Your task to perform on an android device: turn on airplane mode Image 0: 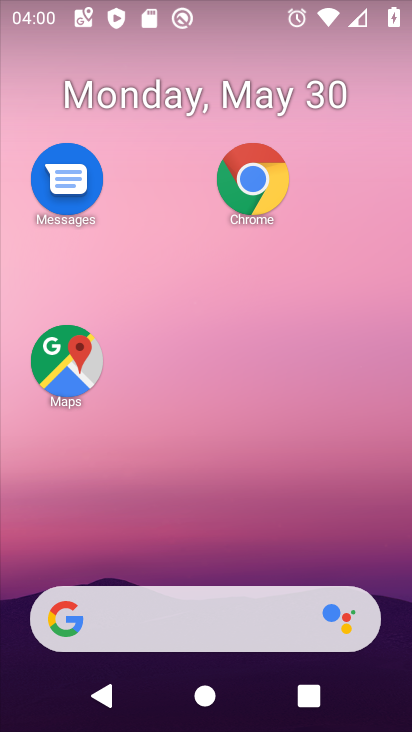
Step 0: drag from (196, 542) to (304, 6)
Your task to perform on an android device: turn on airplane mode Image 1: 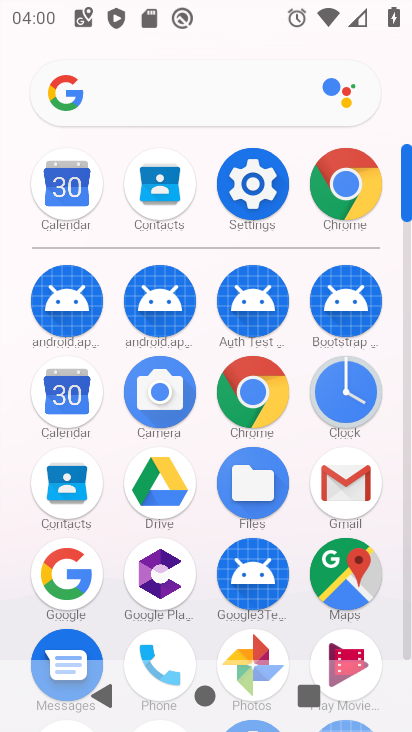
Step 1: click (256, 188)
Your task to perform on an android device: turn on airplane mode Image 2: 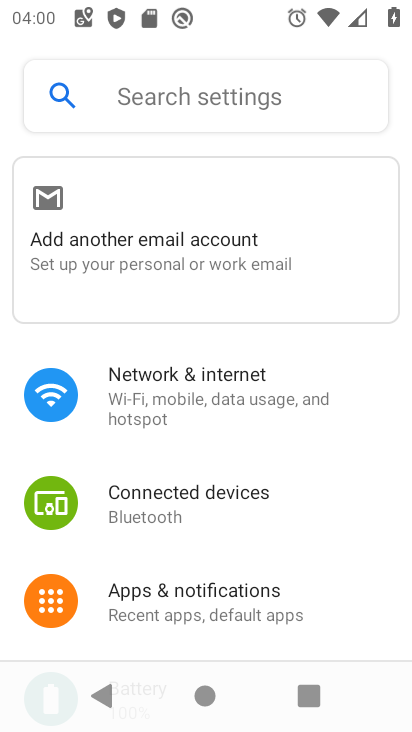
Step 2: drag from (144, 618) to (166, 276)
Your task to perform on an android device: turn on airplane mode Image 3: 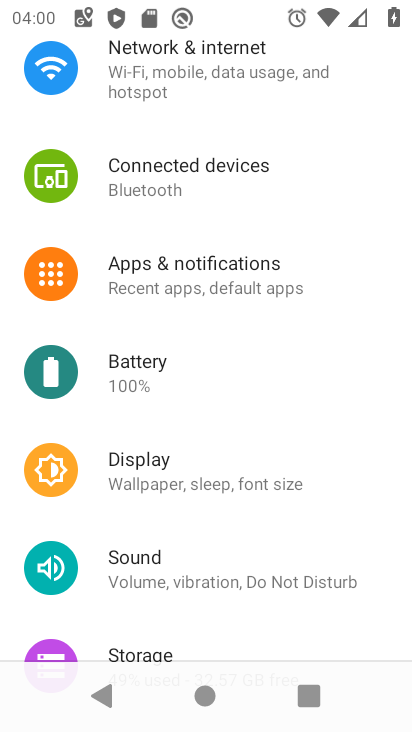
Step 3: drag from (170, 585) to (200, 221)
Your task to perform on an android device: turn on airplane mode Image 4: 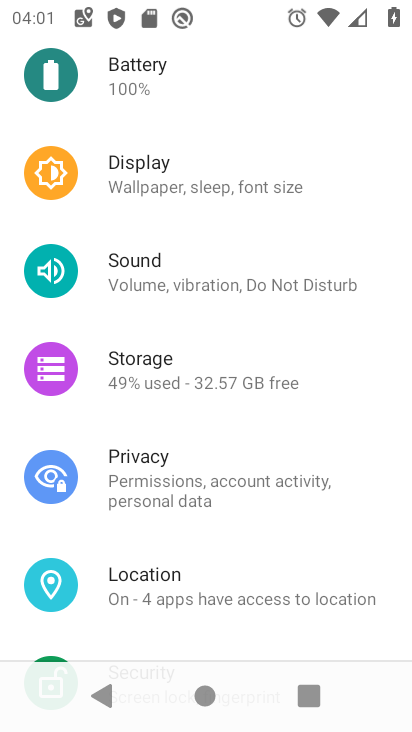
Step 4: drag from (192, 559) to (231, 118)
Your task to perform on an android device: turn on airplane mode Image 5: 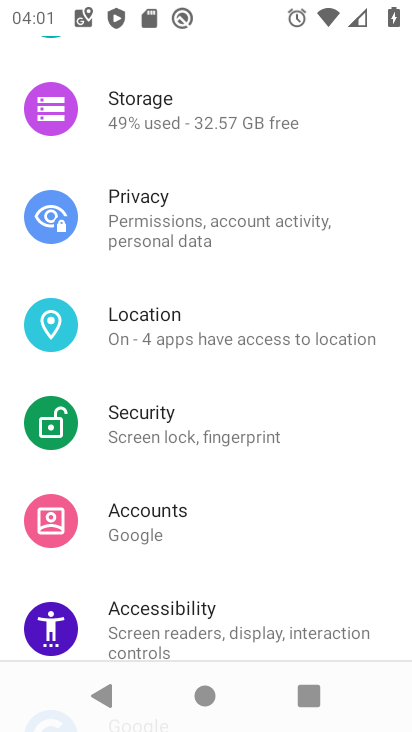
Step 5: drag from (208, 221) to (187, 716)
Your task to perform on an android device: turn on airplane mode Image 6: 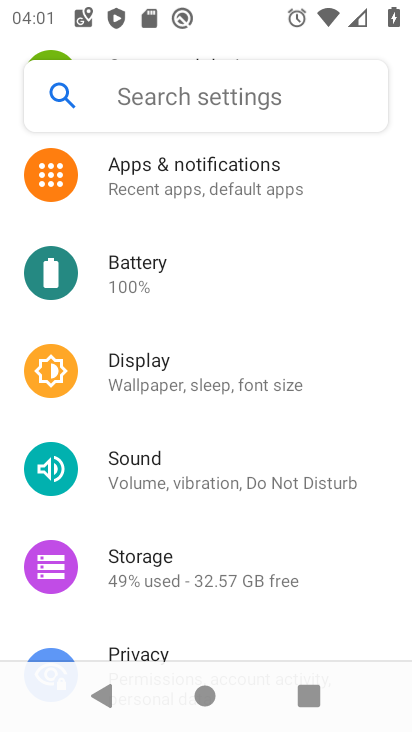
Step 6: drag from (182, 462) to (173, 525)
Your task to perform on an android device: turn on airplane mode Image 7: 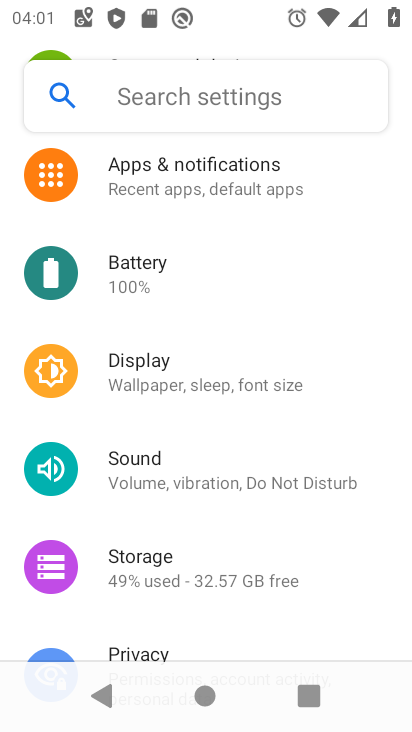
Step 7: drag from (218, 268) to (149, 654)
Your task to perform on an android device: turn on airplane mode Image 8: 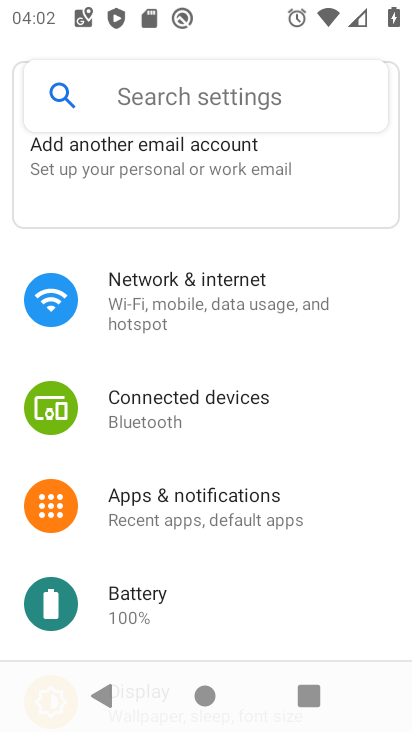
Step 8: click (192, 299)
Your task to perform on an android device: turn on airplane mode Image 9: 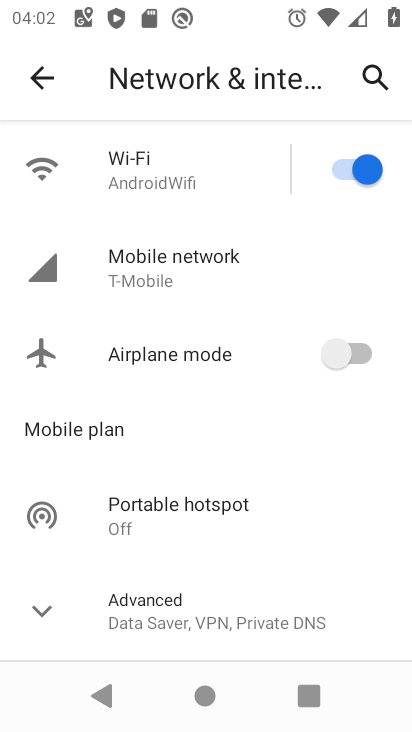
Step 9: drag from (8, 218) to (343, 351)
Your task to perform on an android device: turn on airplane mode Image 10: 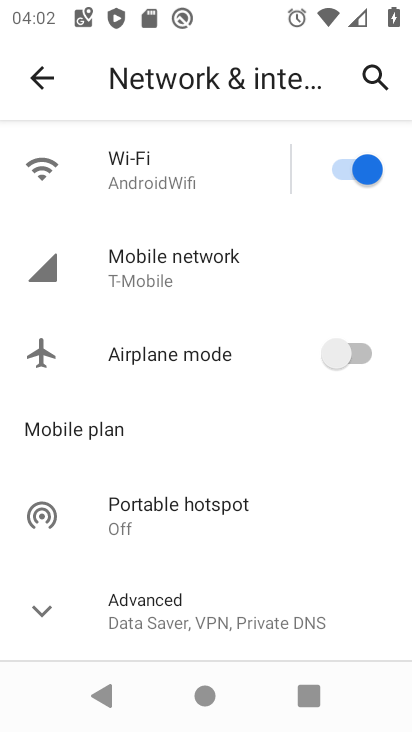
Step 10: click (360, 356)
Your task to perform on an android device: turn on airplane mode Image 11: 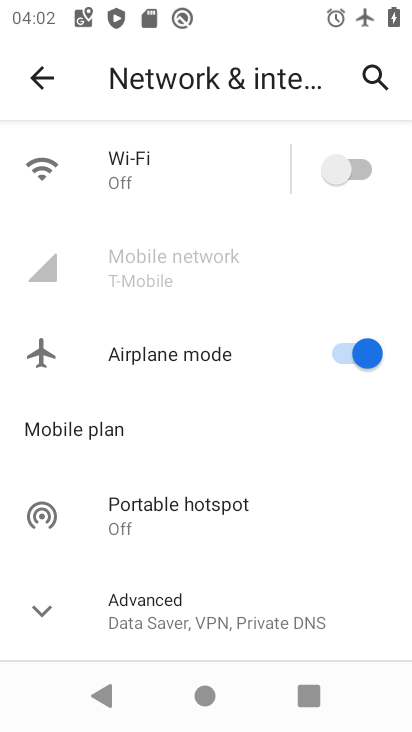
Step 11: task complete